Your task to perform on an android device: turn off smart reply in the gmail app Image 0: 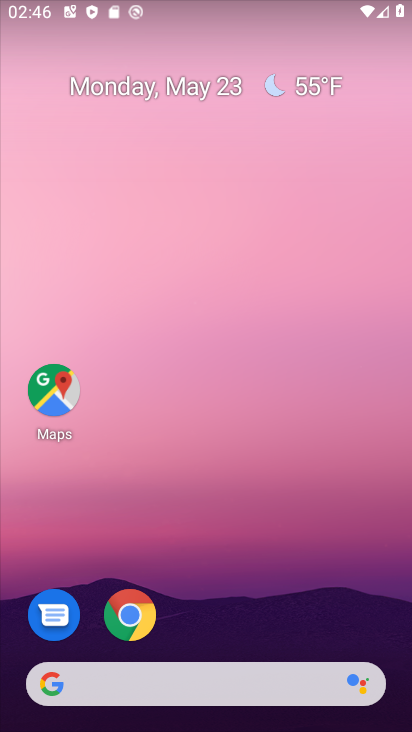
Step 0: drag from (385, 631) to (369, 239)
Your task to perform on an android device: turn off smart reply in the gmail app Image 1: 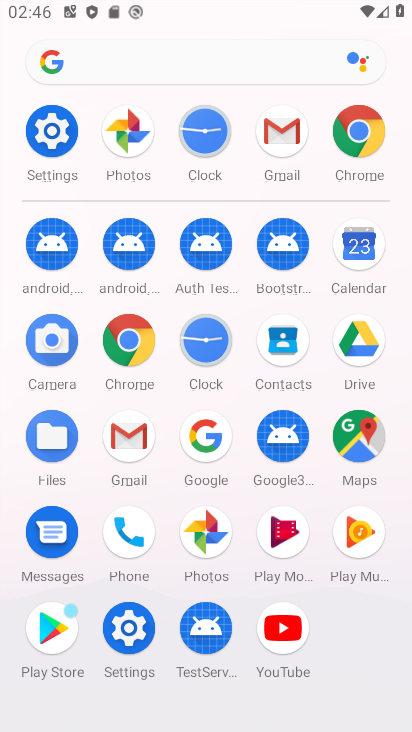
Step 1: click (118, 462)
Your task to perform on an android device: turn off smart reply in the gmail app Image 2: 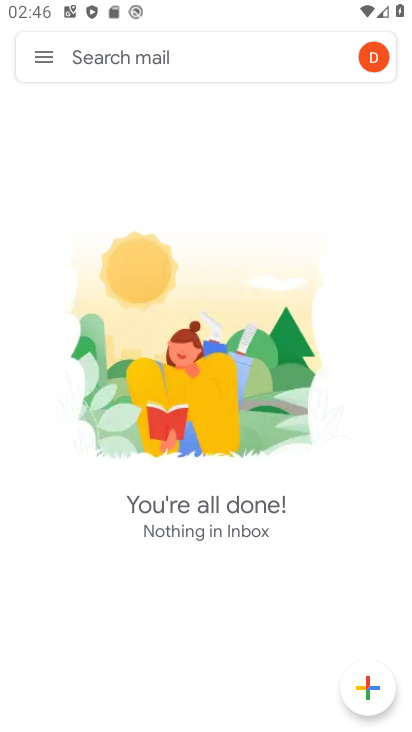
Step 2: click (39, 49)
Your task to perform on an android device: turn off smart reply in the gmail app Image 3: 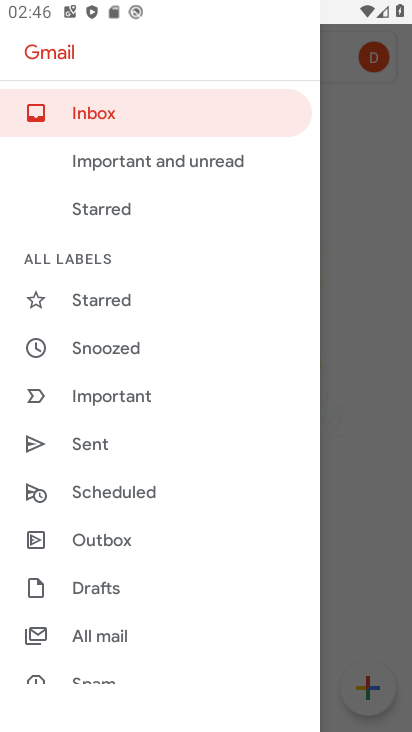
Step 3: drag from (227, 478) to (238, 377)
Your task to perform on an android device: turn off smart reply in the gmail app Image 4: 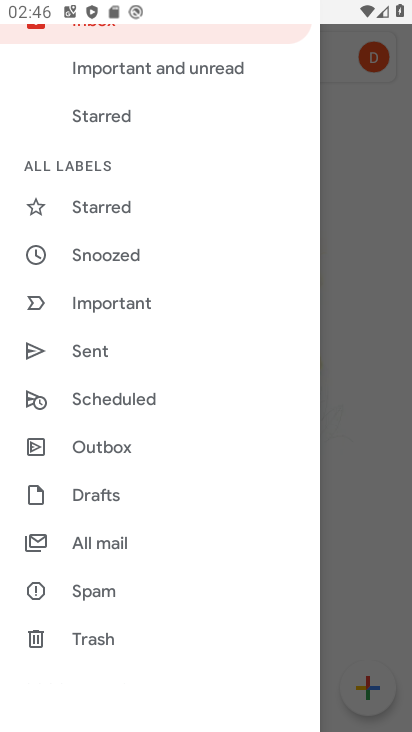
Step 4: drag from (235, 494) to (237, 398)
Your task to perform on an android device: turn off smart reply in the gmail app Image 5: 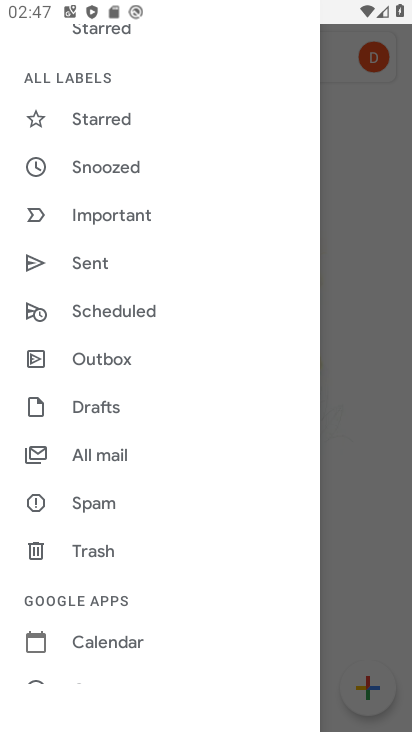
Step 5: drag from (189, 591) to (217, 449)
Your task to perform on an android device: turn off smart reply in the gmail app Image 6: 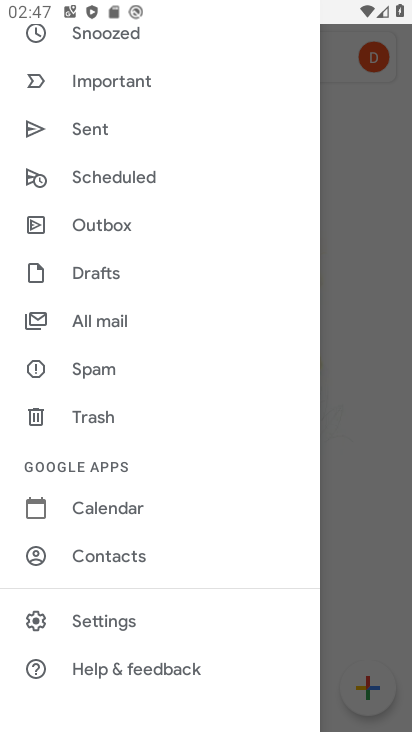
Step 6: click (125, 619)
Your task to perform on an android device: turn off smart reply in the gmail app Image 7: 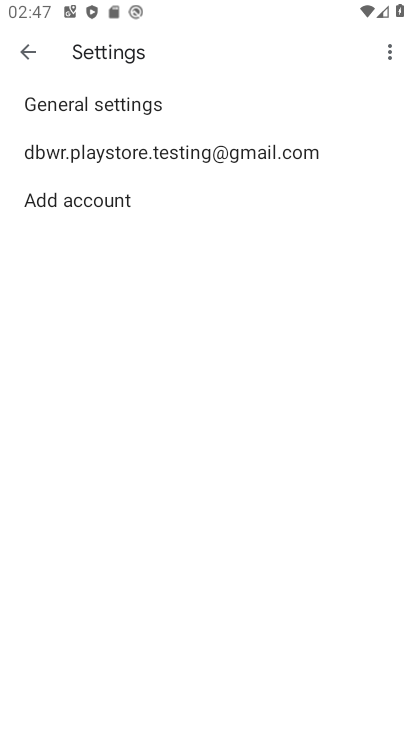
Step 7: click (260, 159)
Your task to perform on an android device: turn off smart reply in the gmail app Image 8: 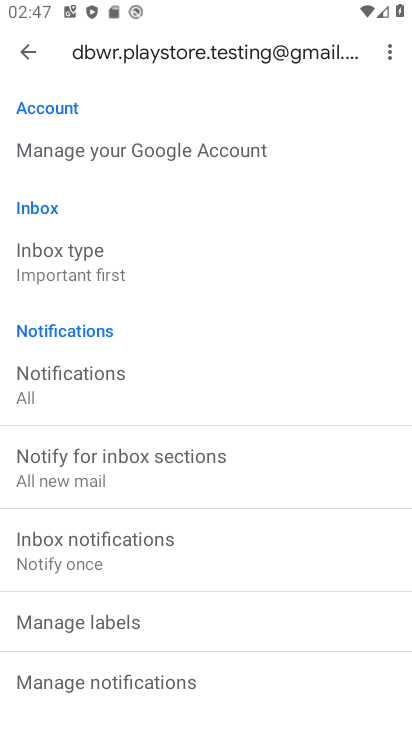
Step 8: drag from (299, 559) to (307, 473)
Your task to perform on an android device: turn off smart reply in the gmail app Image 9: 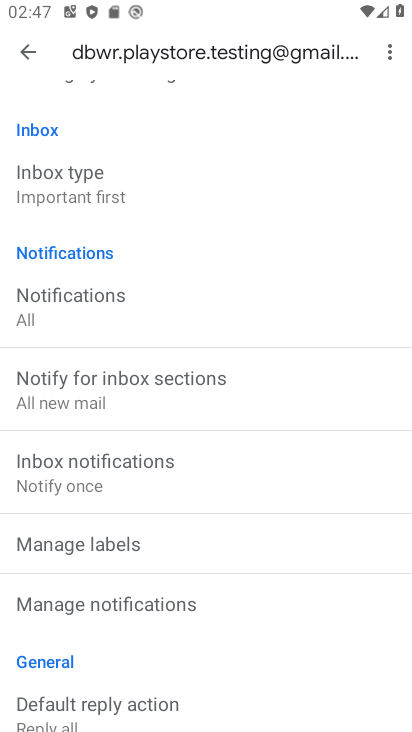
Step 9: drag from (323, 555) to (327, 454)
Your task to perform on an android device: turn off smart reply in the gmail app Image 10: 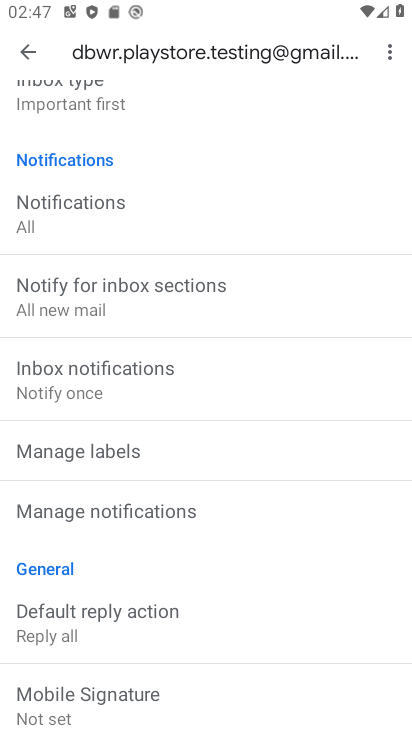
Step 10: drag from (307, 573) to (297, 489)
Your task to perform on an android device: turn off smart reply in the gmail app Image 11: 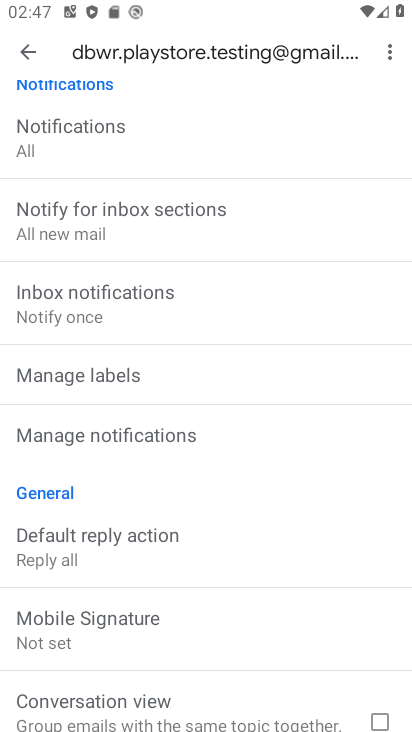
Step 11: drag from (305, 571) to (292, 492)
Your task to perform on an android device: turn off smart reply in the gmail app Image 12: 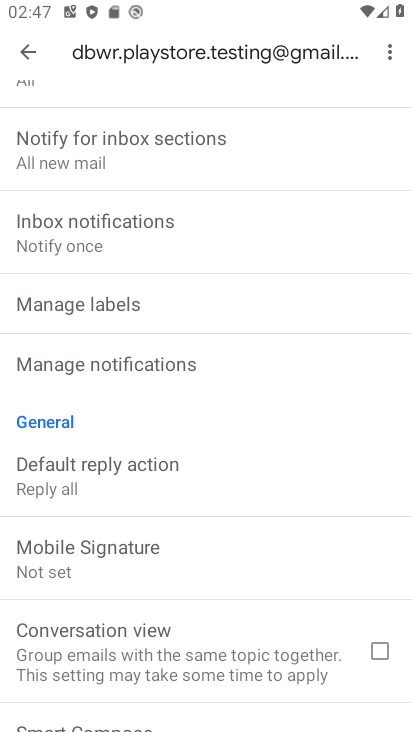
Step 12: drag from (286, 613) to (289, 507)
Your task to perform on an android device: turn off smart reply in the gmail app Image 13: 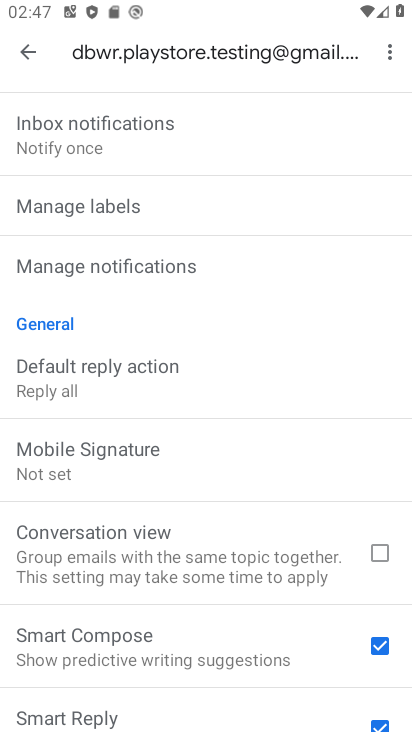
Step 13: drag from (289, 639) to (277, 549)
Your task to perform on an android device: turn off smart reply in the gmail app Image 14: 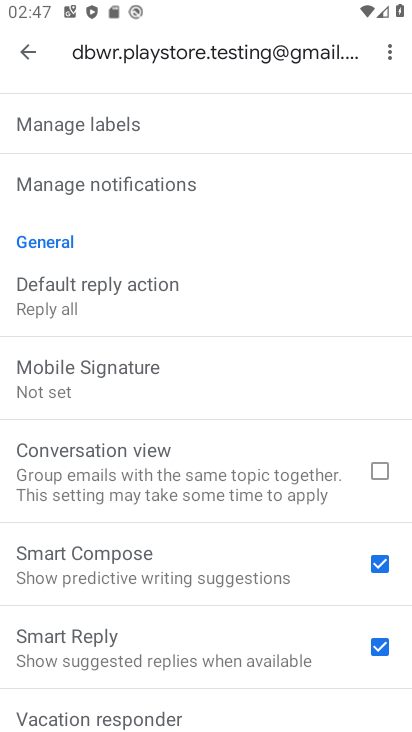
Step 14: drag from (269, 676) to (266, 475)
Your task to perform on an android device: turn off smart reply in the gmail app Image 15: 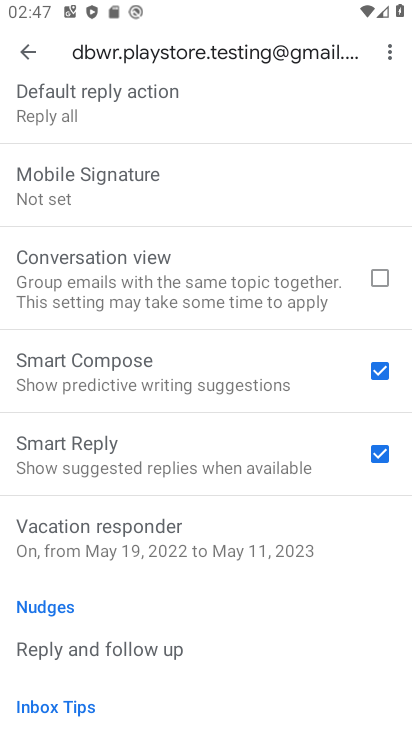
Step 15: click (380, 459)
Your task to perform on an android device: turn off smart reply in the gmail app Image 16: 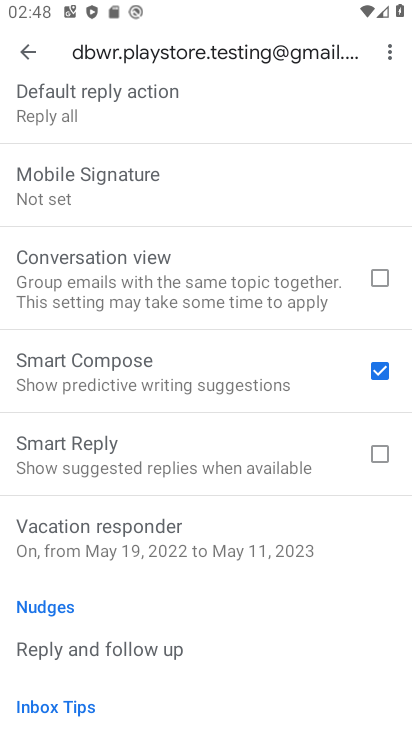
Step 16: task complete